Your task to perform on an android device: Open Android settings Image 0: 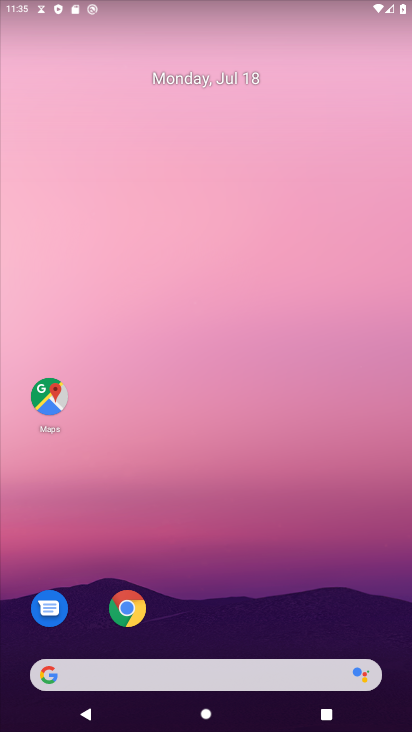
Step 0: drag from (257, 652) to (250, 2)
Your task to perform on an android device: Open Android settings Image 1: 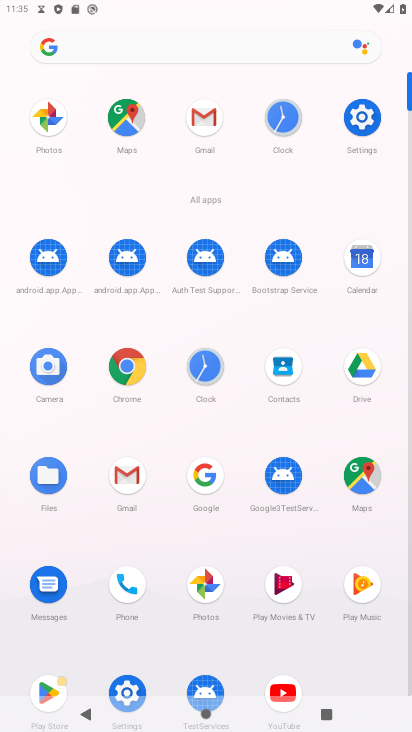
Step 1: click (359, 125)
Your task to perform on an android device: Open Android settings Image 2: 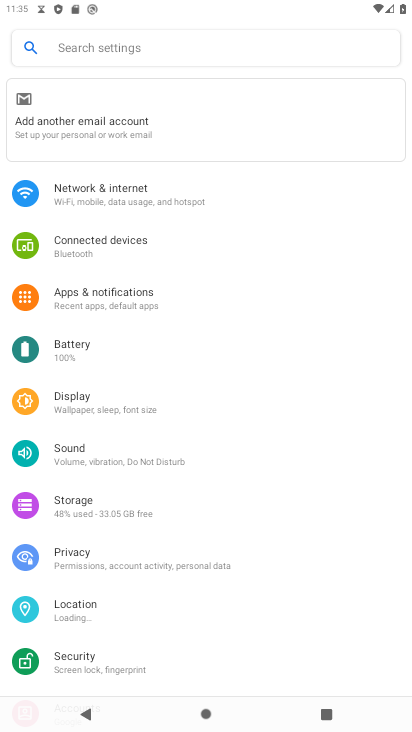
Step 2: drag from (198, 638) to (227, 155)
Your task to perform on an android device: Open Android settings Image 3: 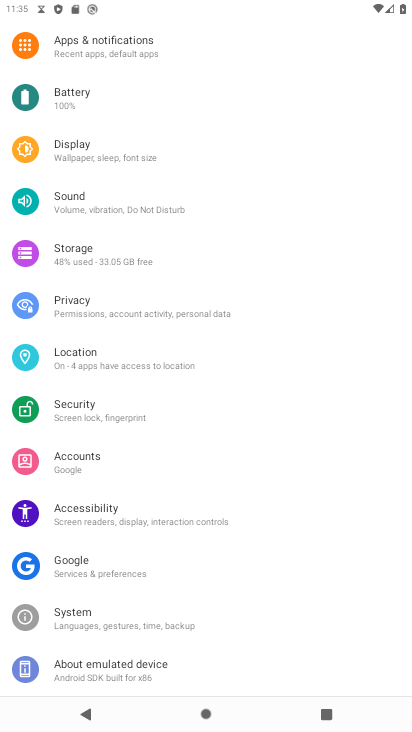
Step 3: drag from (107, 684) to (149, 405)
Your task to perform on an android device: Open Android settings Image 4: 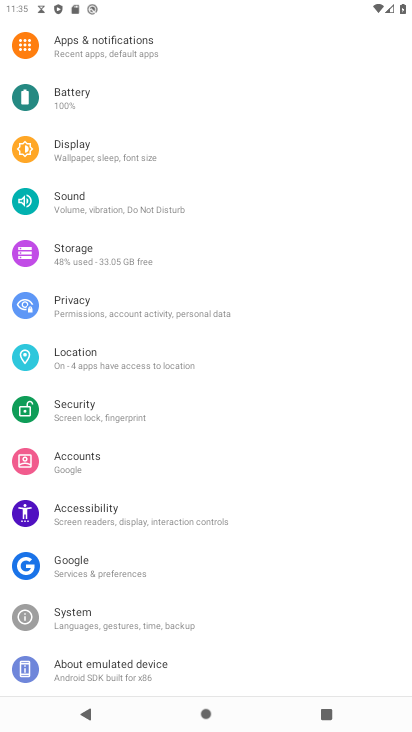
Step 4: click (139, 671)
Your task to perform on an android device: Open Android settings Image 5: 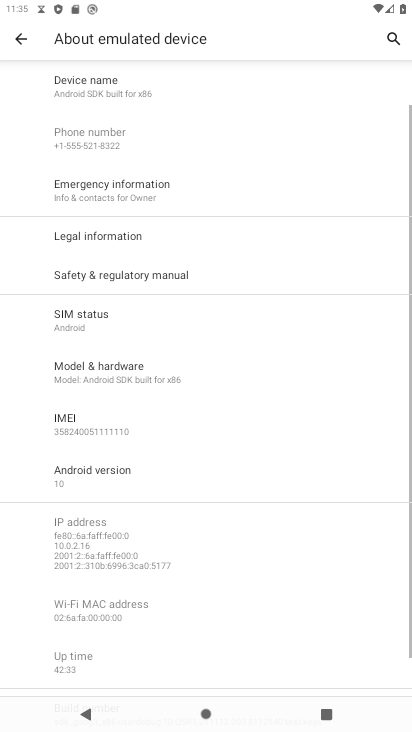
Step 5: click (135, 479)
Your task to perform on an android device: Open Android settings Image 6: 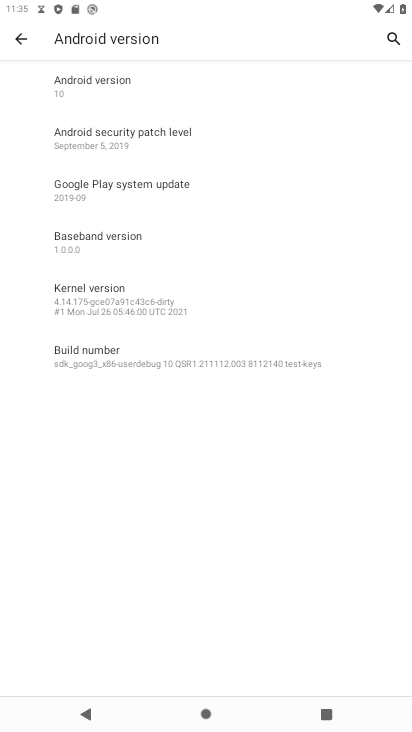
Step 6: task complete